Your task to perform on an android device: Go to sound settings Image 0: 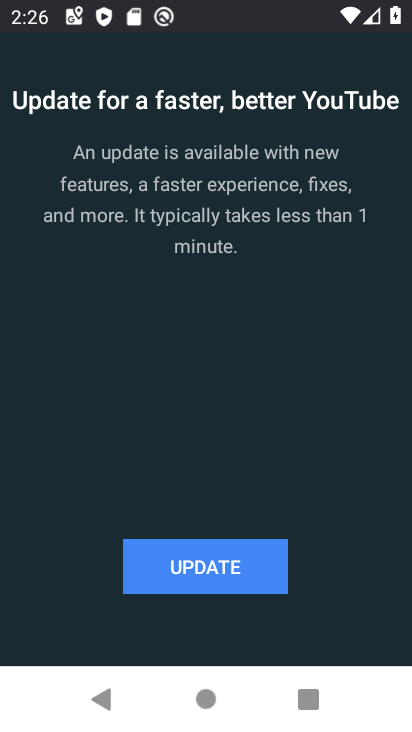
Step 0: press home button
Your task to perform on an android device: Go to sound settings Image 1: 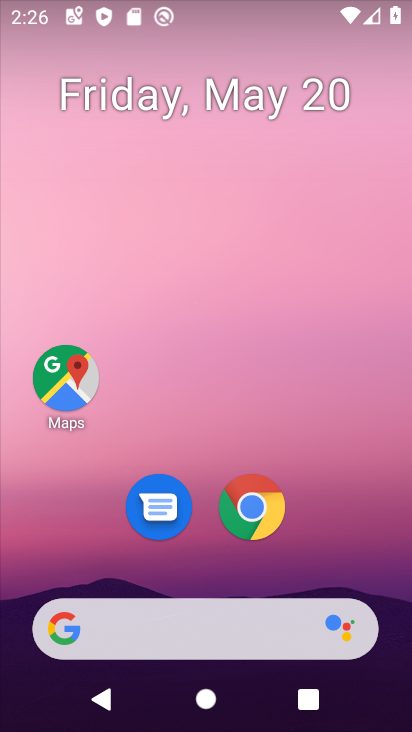
Step 1: drag from (235, 712) to (235, 131)
Your task to perform on an android device: Go to sound settings Image 2: 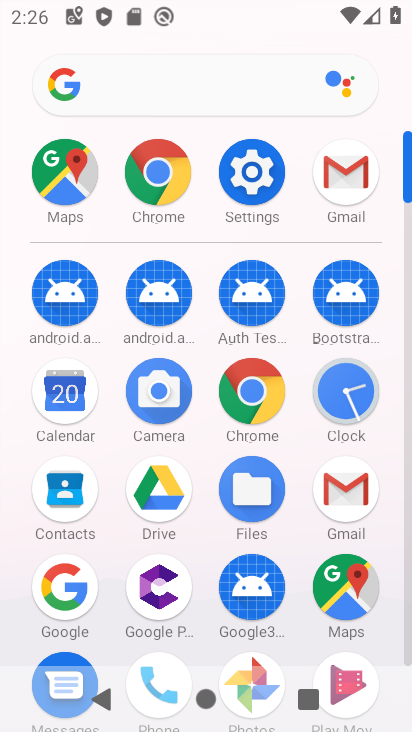
Step 2: click (269, 180)
Your task to perform on an android device: Go to sound settings Image 3: 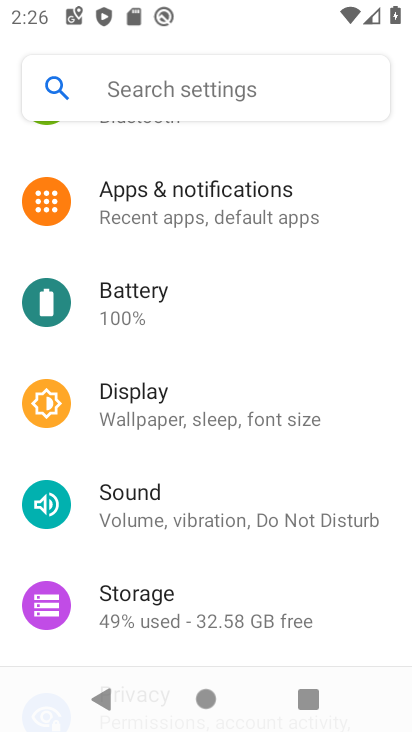
Step 3: click (132, 494)
Your task to perform on an android device: Go to sound settings Image 4: 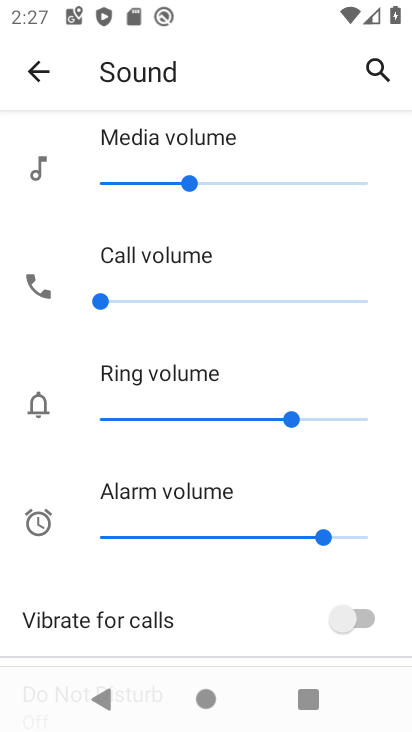
Step 4: task complete